Your task to perform on an android device: change the clock display to show seconds Image 0: 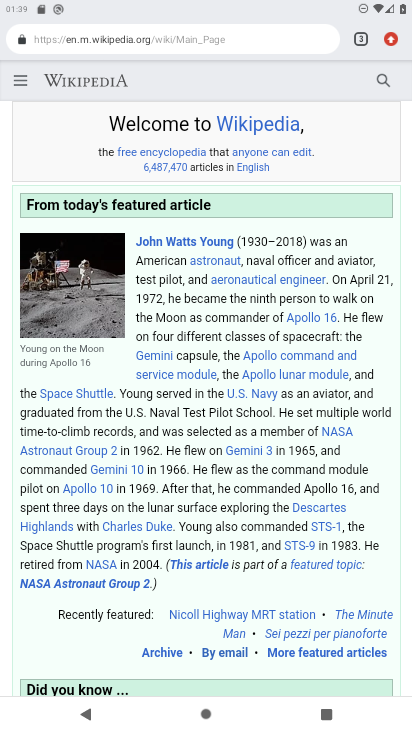
Step 0: press home button
Your task to perform on an android device: change the clock display to show seconds Image 1: 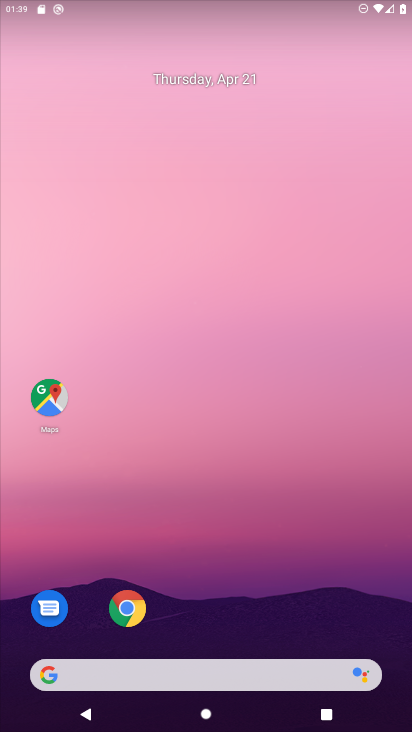
Step 1: drag from (251, 570) to (267, 182)
Your task to perform on an android device: change the clock display to show seconds Image 2: 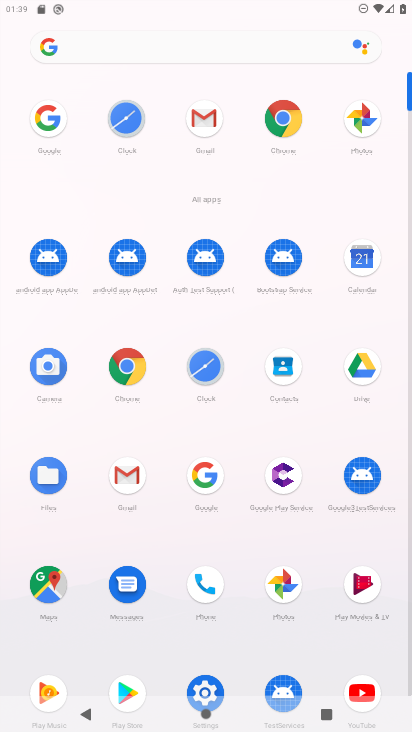
Step 2: click (202, 360)
Your task to perform on an android device: change the clock display to show seconds Image 3: 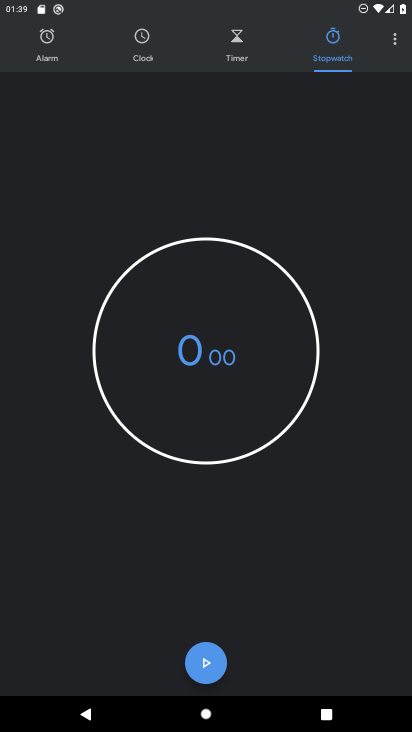
Step 3: click (394, 43)
Your task to perform on an android device: change the clock display to show seconds Image 4: 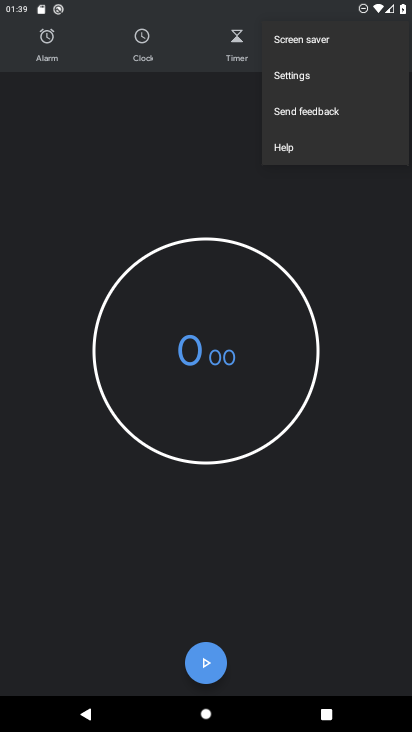
Step 4: click (317, 74)
Your task to perform on an android device: change the clock display to show seconds Image 5: 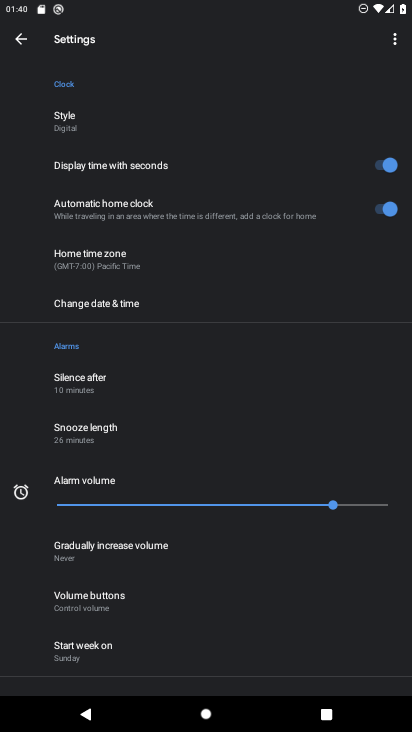
Step 5: click (380, 165)
Your task to perform on an android device: change the clock display to show seconds Image 6: 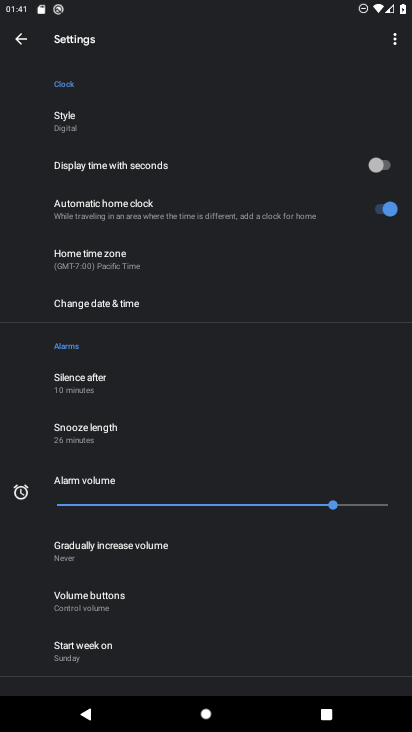
Step 6: task complete